Your task to perform on an android device: Show me the alarms in the clock app Image 0: 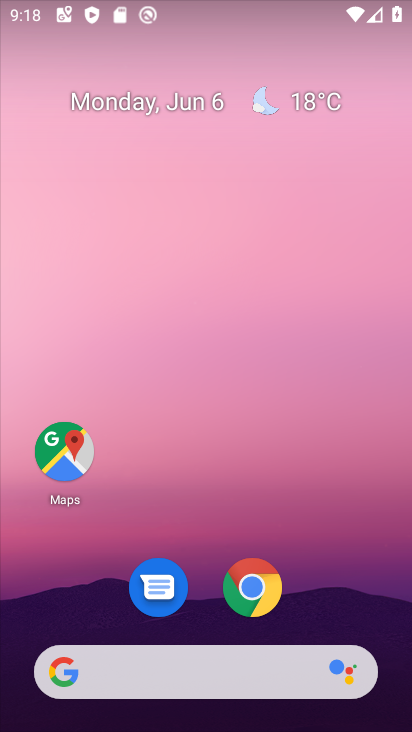
Step 0: drag from (309, 596) to (298, 13)
Your task to perform on an android device: Show me the alarms in the clock app Image 1: 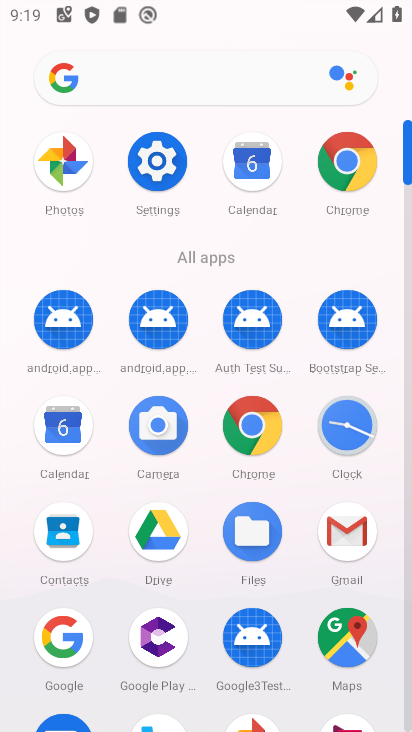
Step 1: click (336, 420)
Your task to perform on an android device: Show me the alarms in the clock app Image 2: 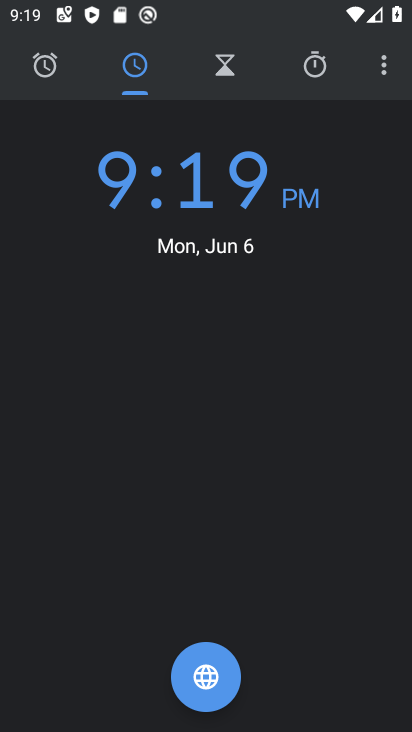
Step 2: click (52, 72)
Your task to perform on an android device: Show me the alarms in the clock app Image 3: 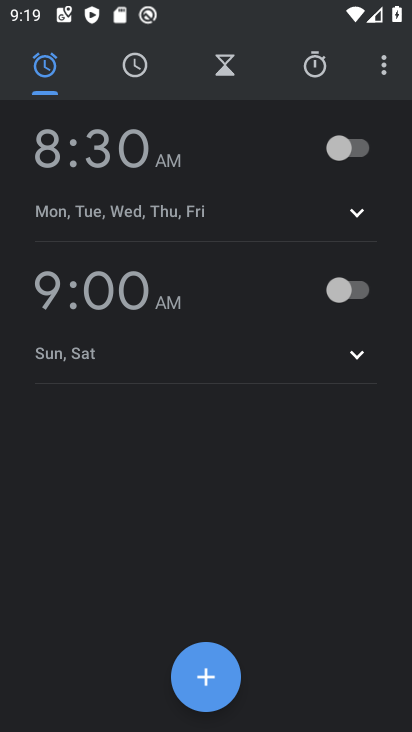
Step 3: task complete